Your task to perform on an android device: allow cookies in the chrome app Image 0: 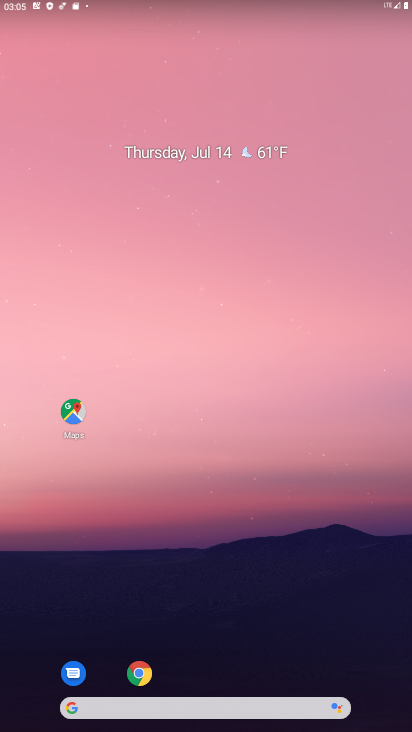
Step 0: click (149, 659)
Your task to perform on an android device: allow cookies in the chrome app Image 1: 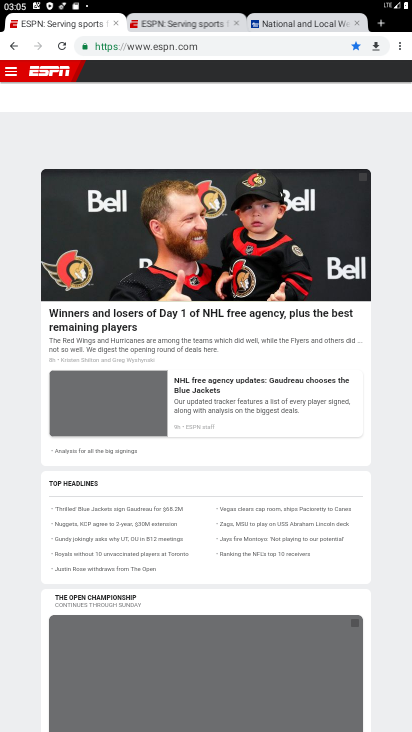
Step 1: click (398, 47)
Your task to perform on an android device: allow cookies in the chrome app Image 2: 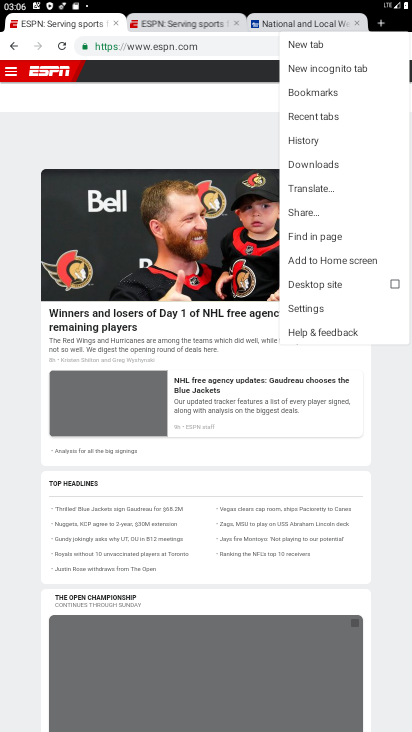
Step 2: click (329, 302)
Your task to perform on an android device: allow cookies in the chrome app Image 3: 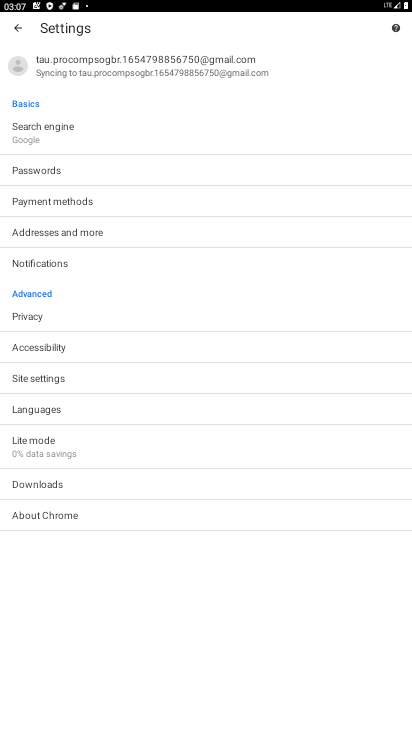
Step 3: click (173, 386)
Your task to perform on an android device: allow cookies in the chrome app Image 4: 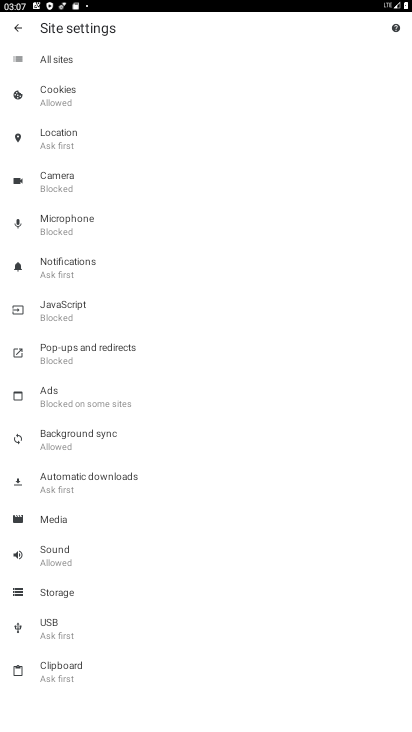
Step 4: click (112, 105)
Your task to perform on an android device: allow cookies in the chrome app Image 5: 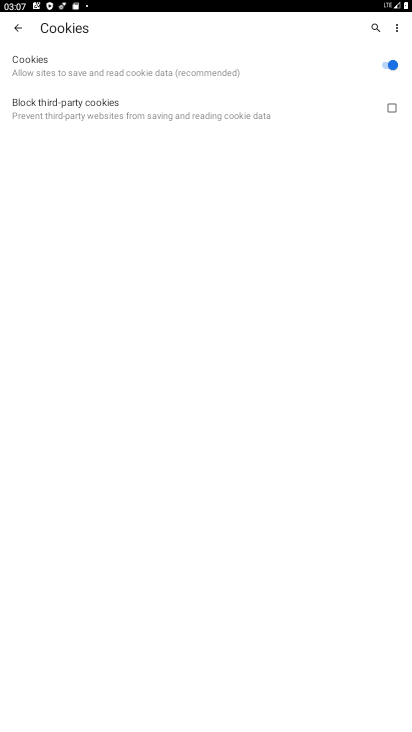
Step 5: task complete